Your task to perform on an android device: change the clock display to analog Image 0: 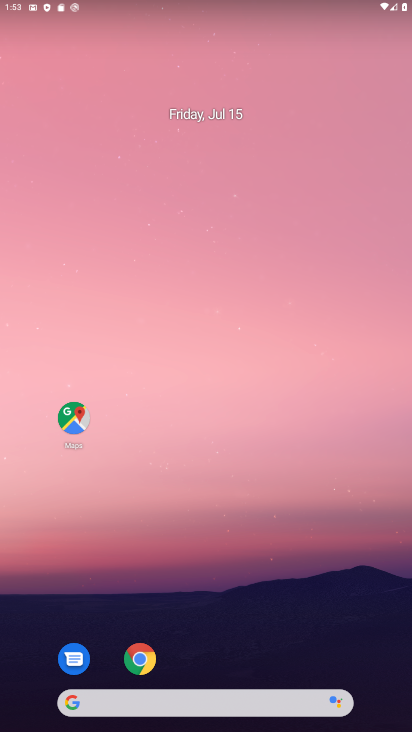
Step 0: drag from (132, 120) to (183, 0)
Your task to perform on an android device: change the clock display to analog Image 1: 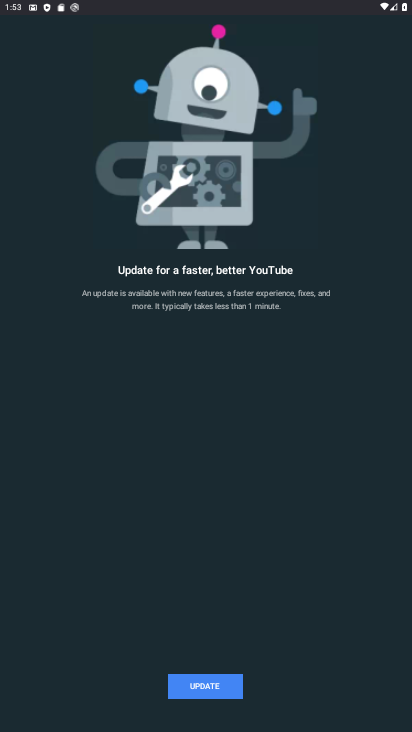
Step 1: task complete